Your task to perform on an android device: View the shopping cart on amazon. Add razer blade to the cart on amazon Image 0: 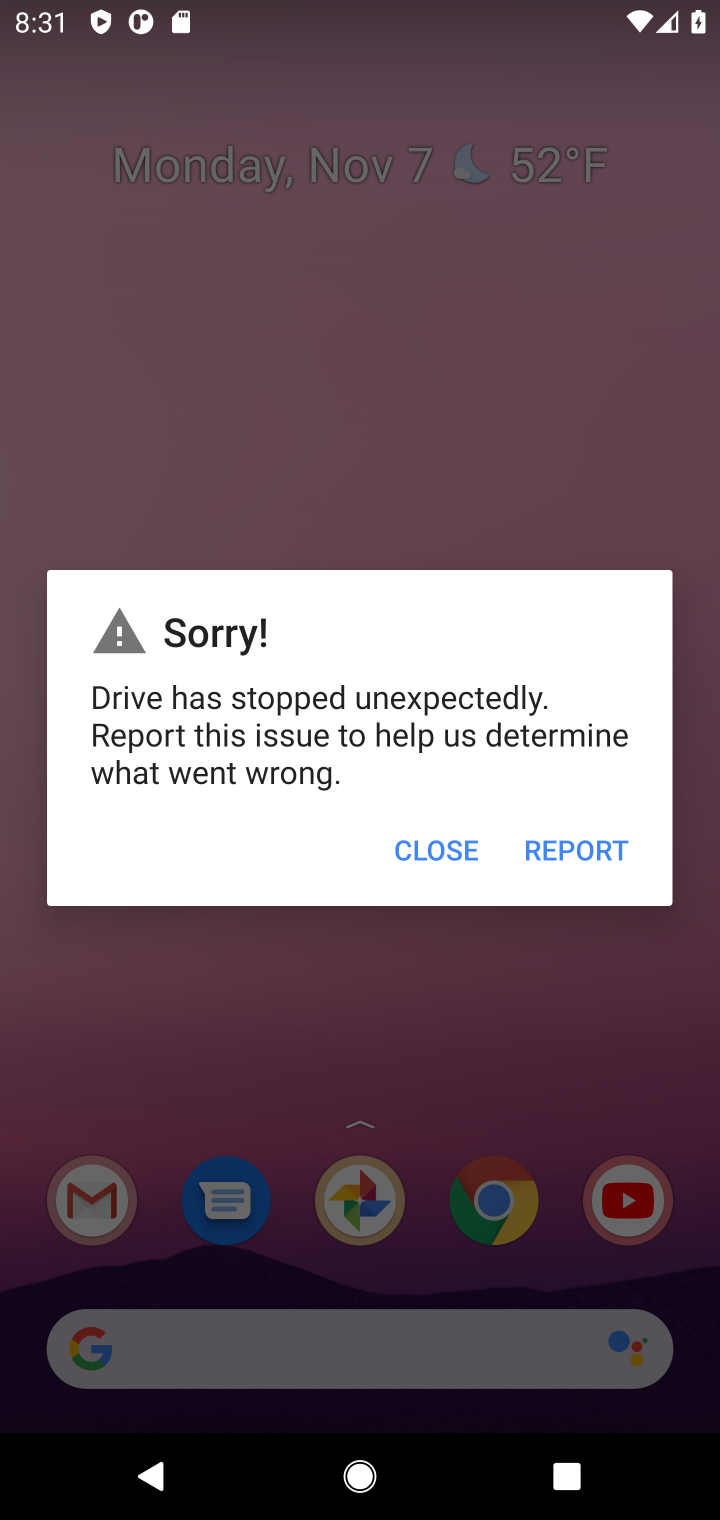
Step 0: press home button
Your task to perform on an android device: View the shopping cart on amazon. Add razer blade to the cart on amazon Image 1: 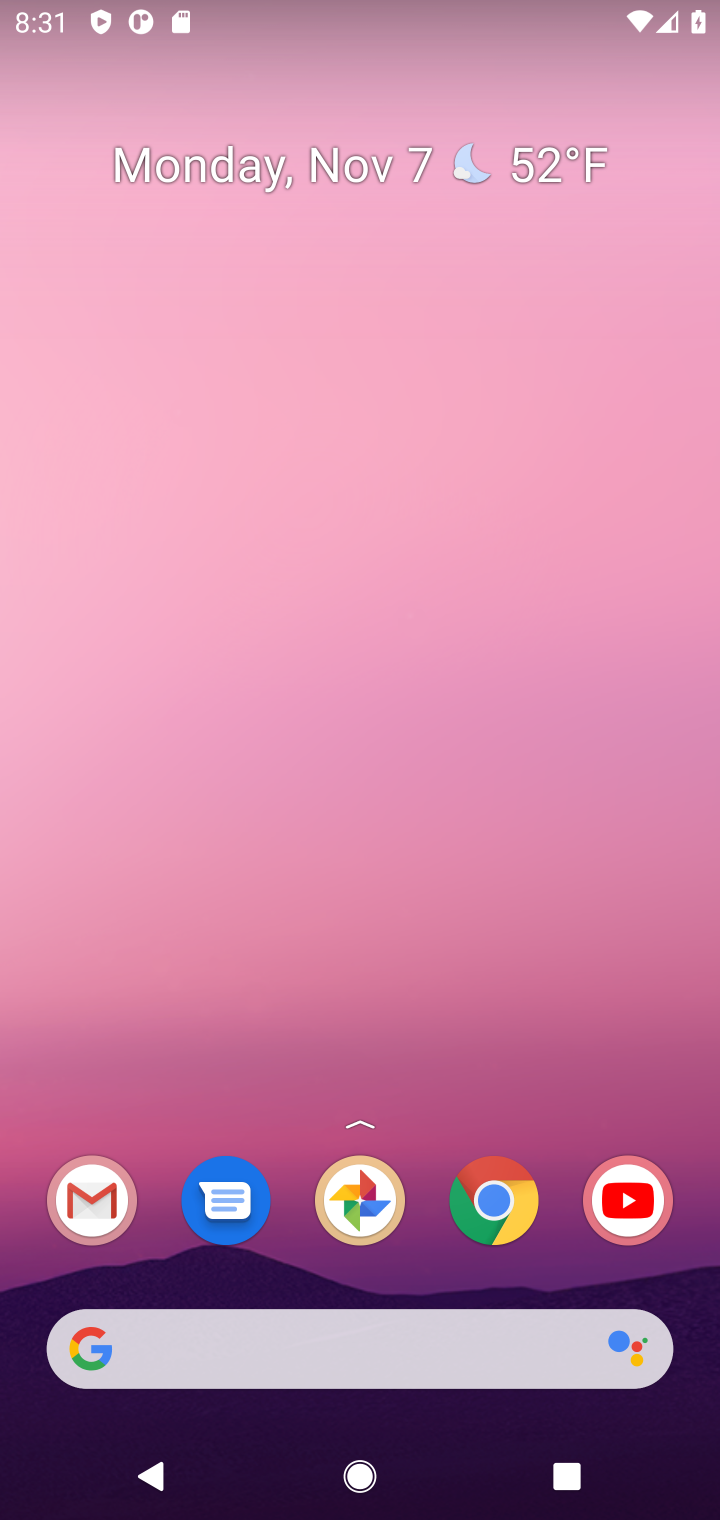
Step 1: click (500, 1225)
Your task to perform on an android device: View the shopping cart on amazon. Add razer blade to the cart on amazon Image 2: 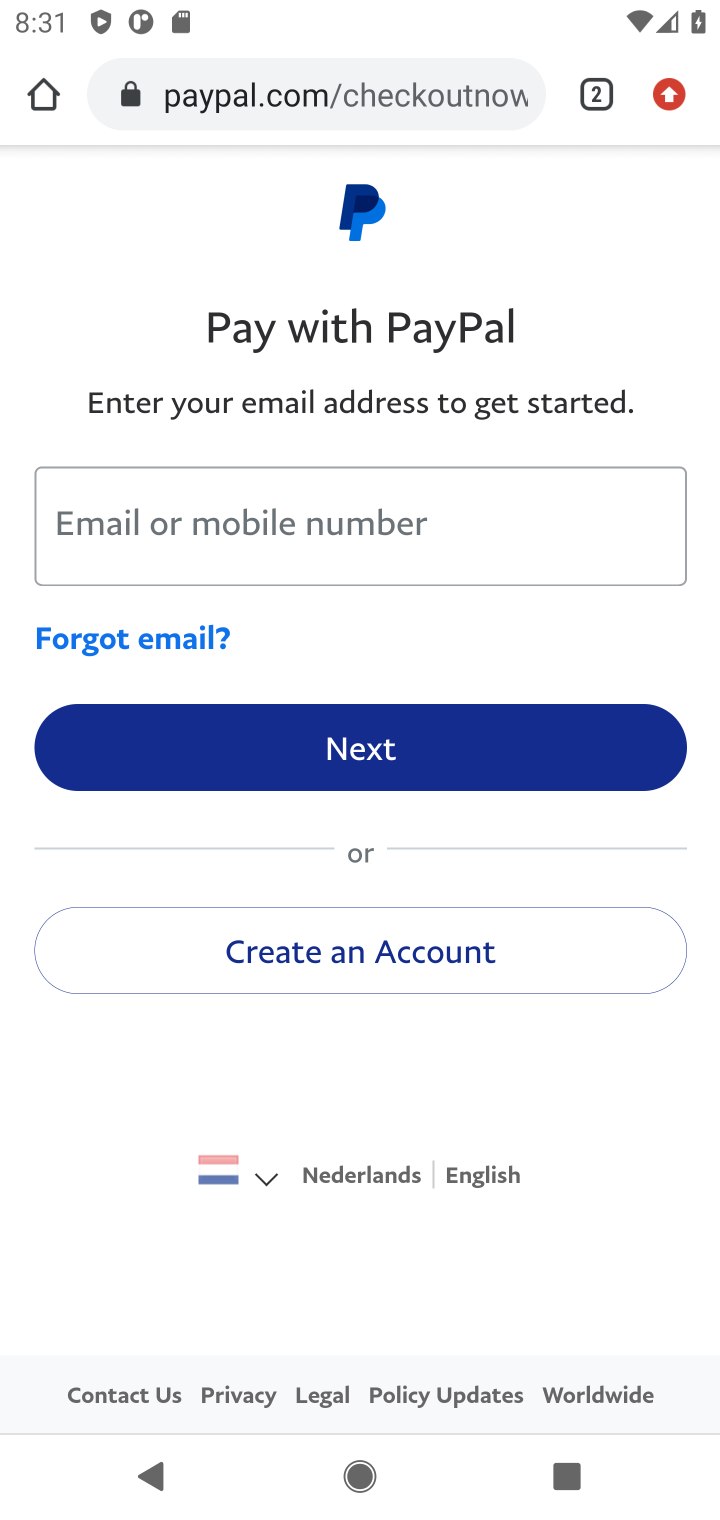
Step 2: click (248, 110)
Your task to perform on an android device: View the shopping cart on amazon. Add razer blade to the cart on amazon Image 3: 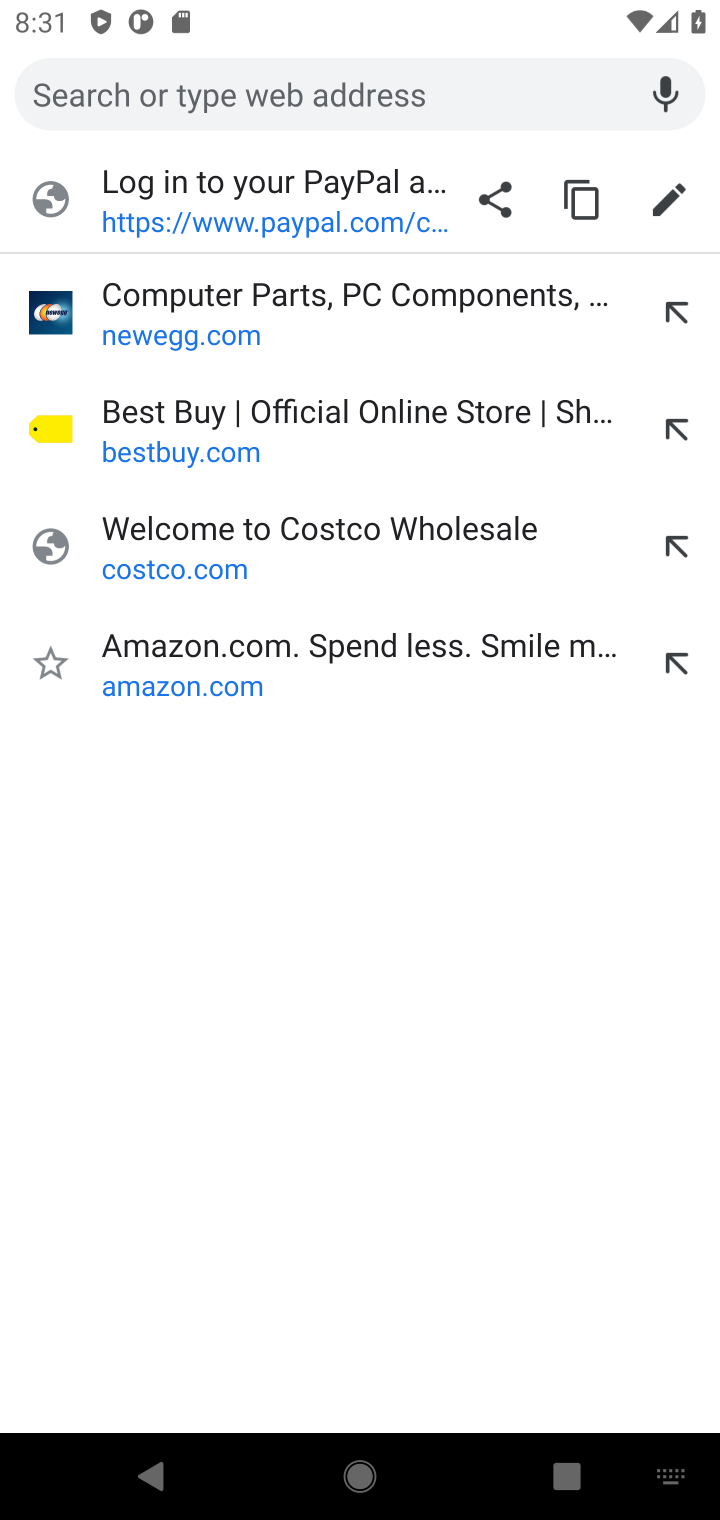
Step 3: type "amazon"
Your task to perform on an android device: View the shopping cart on amazon. Add razer blade to the cart on amazon Image 4: 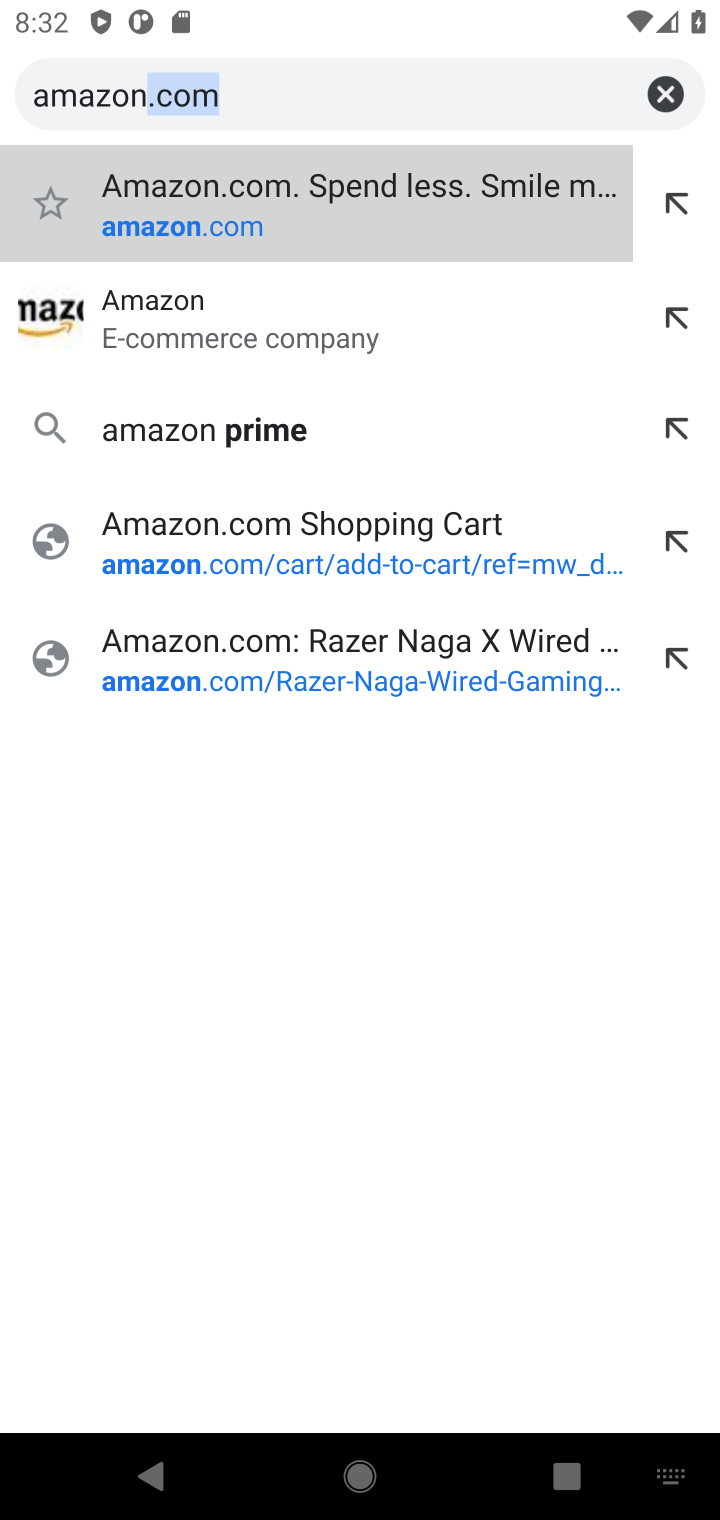
Step 4: click (415, 212)
Your task to perform on an android device: View the shopping cart on amazon. Add razer blade to the cart on amazon Image 5: 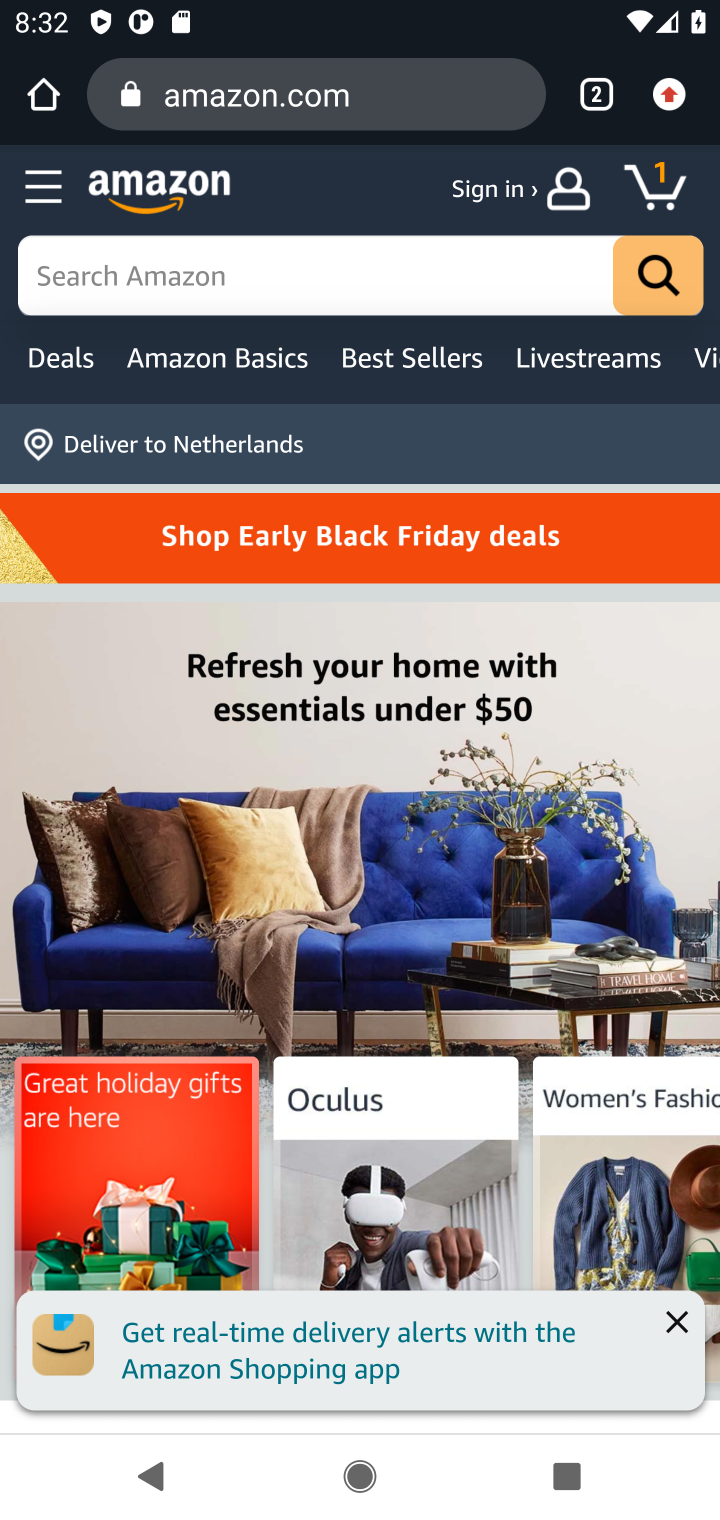
Step 5: click (376, 285)
Your task to perform on an android device: View the shopping cart on amazon. Add razer blade to the cart on amazon Image 6: 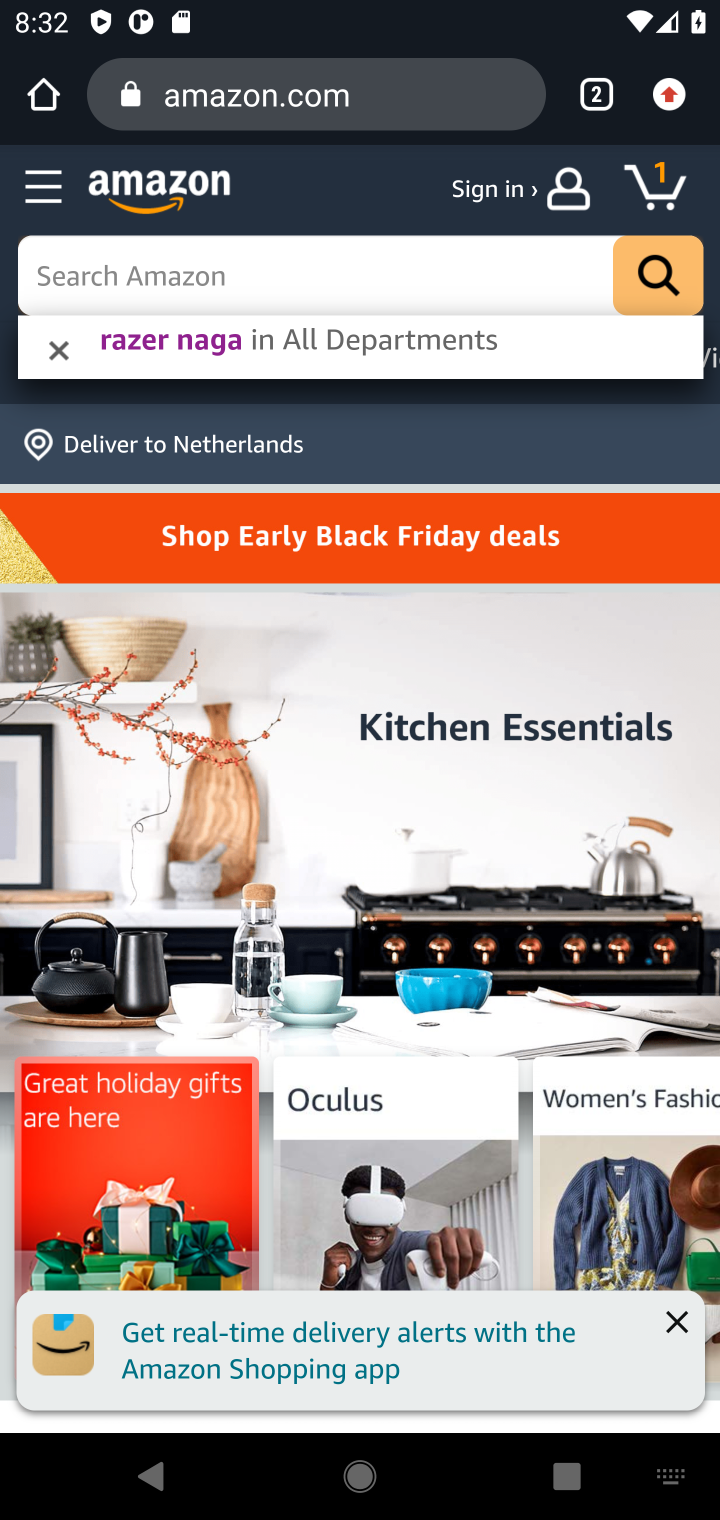
Step 6: type "razer blade"
Your task to perform on an android device: View the shopping cart on amazon. Add razer blade to the cart on amazon Image 7: 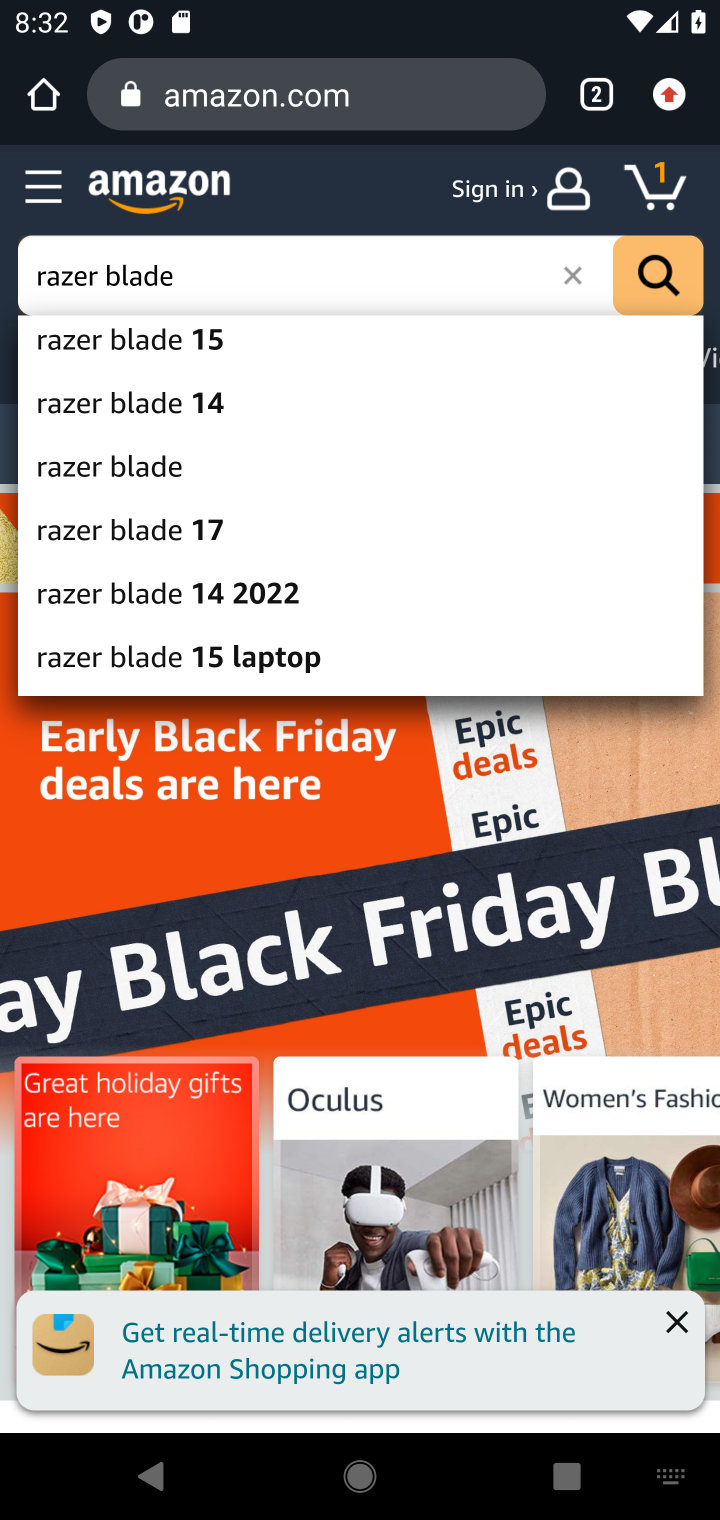
Step 7: press enter
Your task to perform on an android device: View the shopping cart on amazon. Add razer blade to the cart on amazon Image 8: 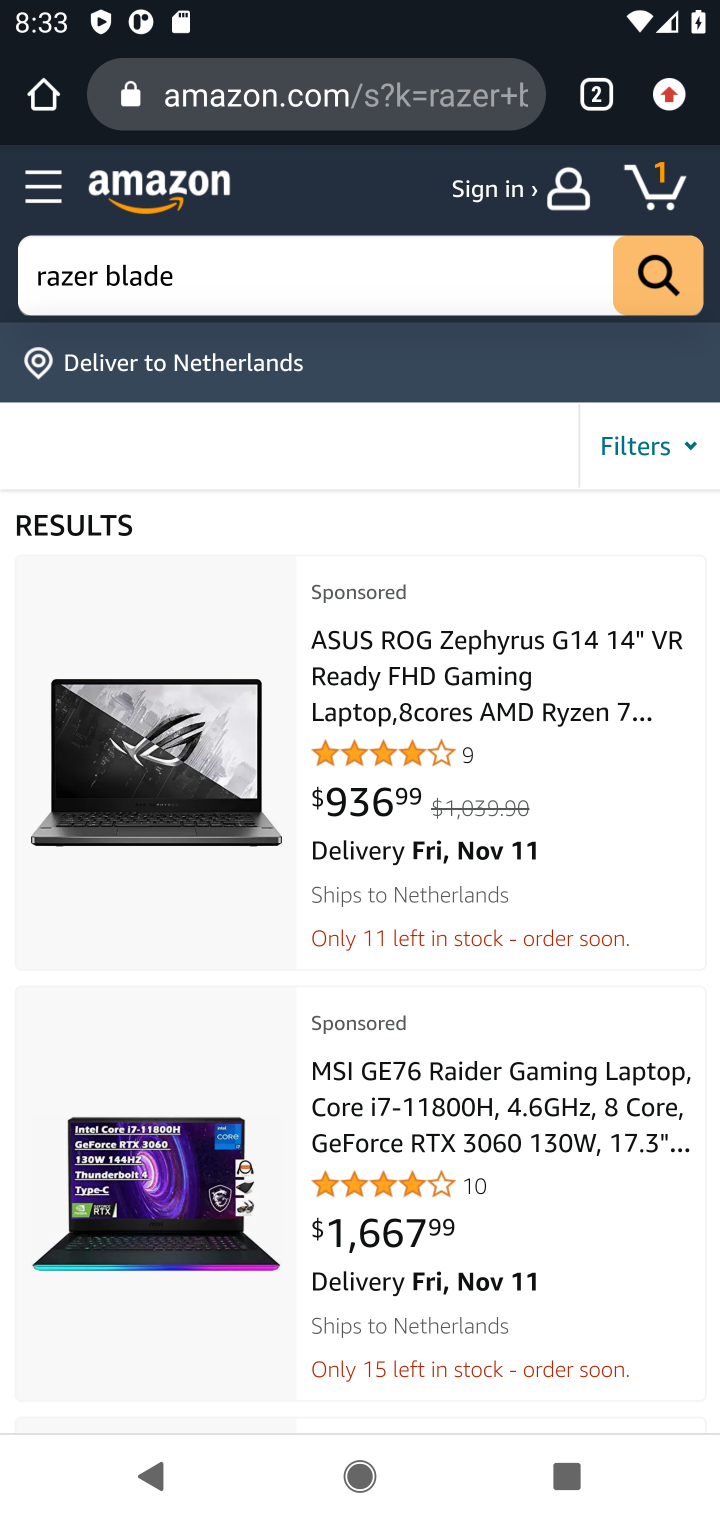
Step 8: drag from (377, 1190) to (440, 819)
Your task to perform on an android device: View the shopping cart on amazon. Add razer blade to the cart on amazon Image 9: 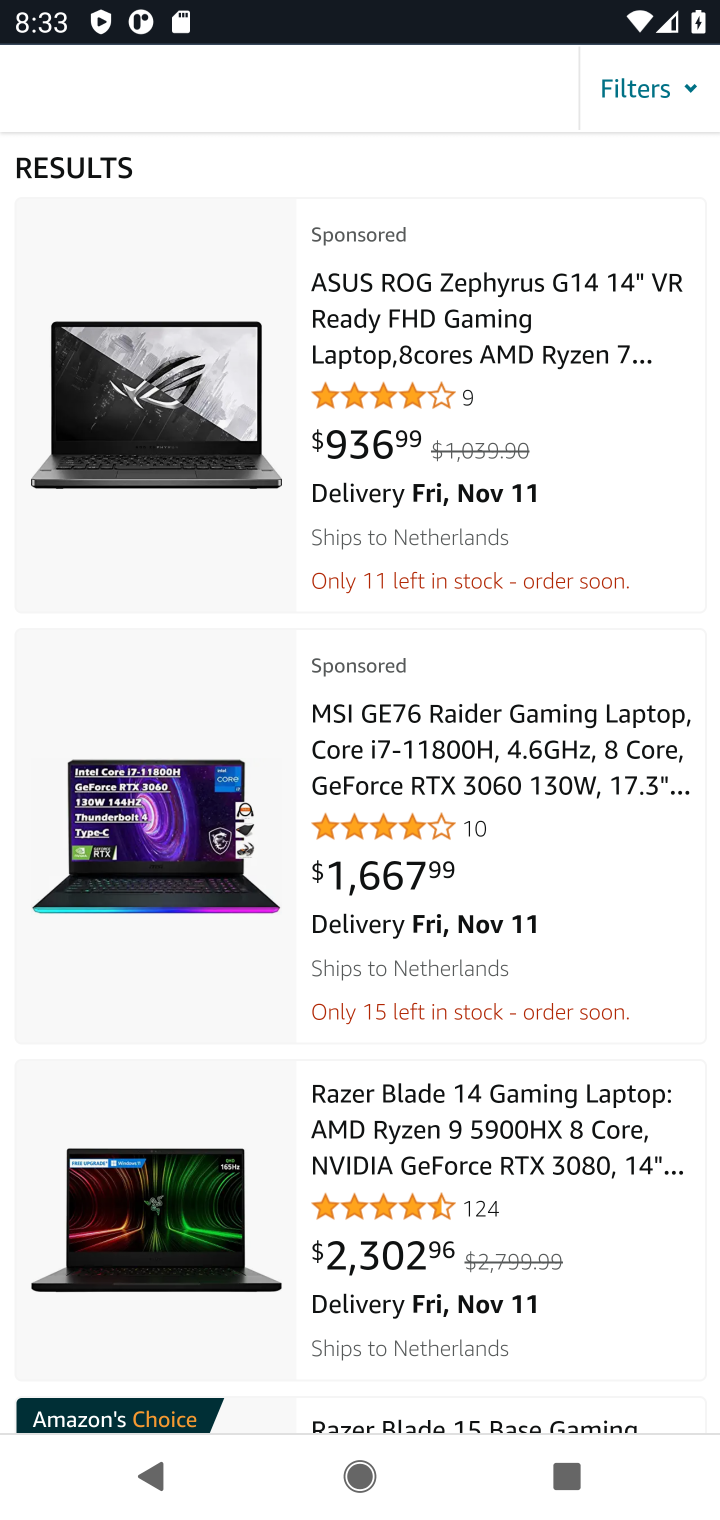
Step 9: click (360, 1129)
Your task to perform on an android device: View the shopping cart on amazon. Add razer blade to the cart on amazon Image 10: 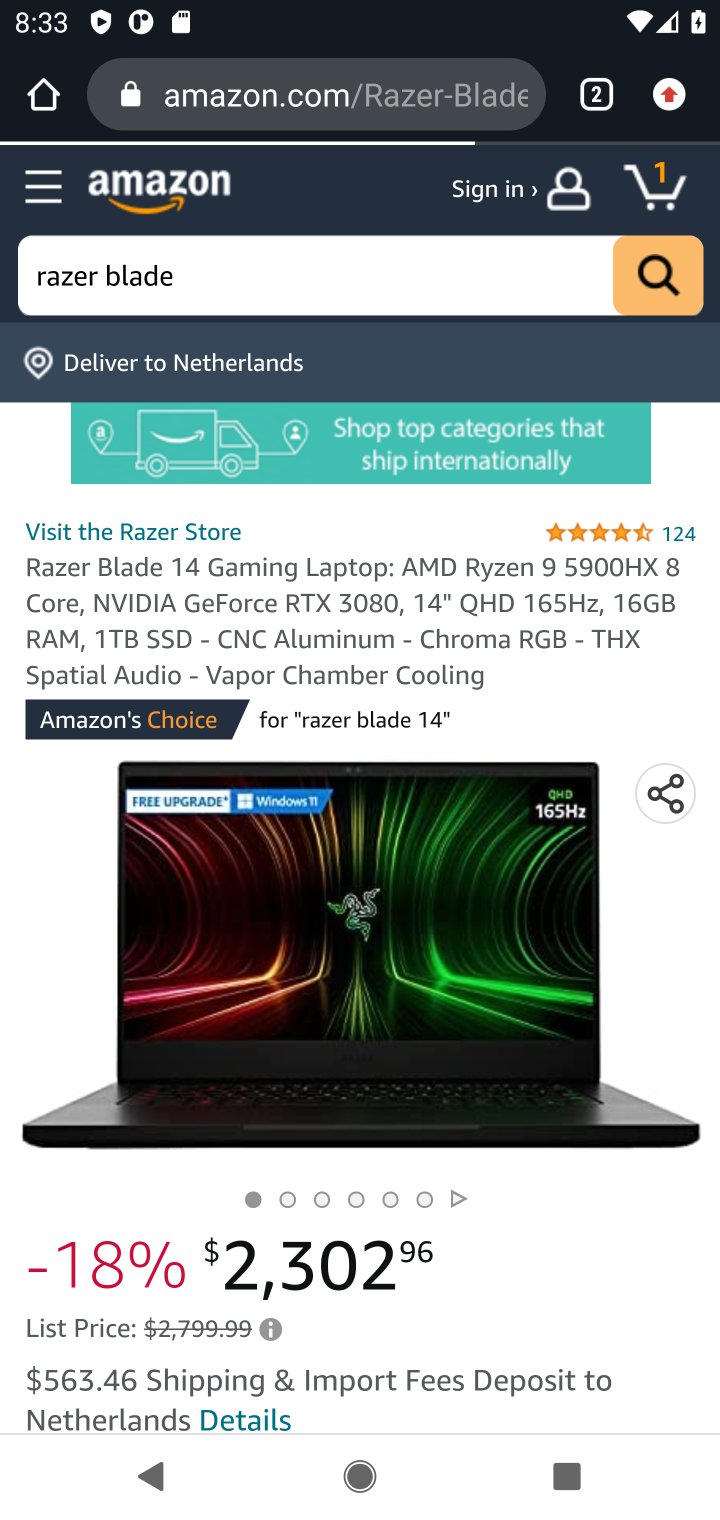
Step 10: drag from (540, 1328) to (446, 639)
Your task to perform on an android device: View the shopping cart on amazon. Add razer blade to the cart on amazon Image 11: 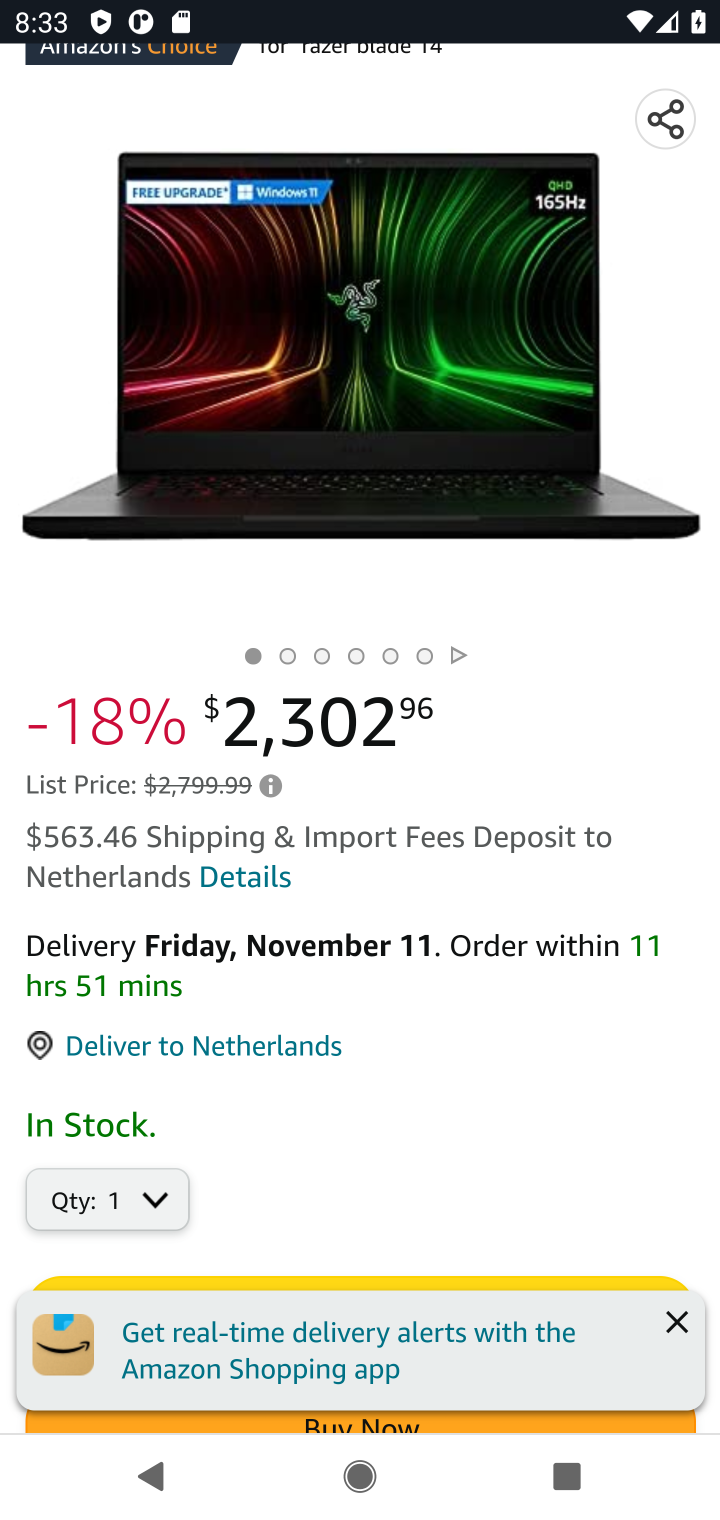
Step 11: click (669, 1334)
Your task to perform on an android device: View the shopping cart on amazon. Add razer blade to the cart on amazon Image 12: 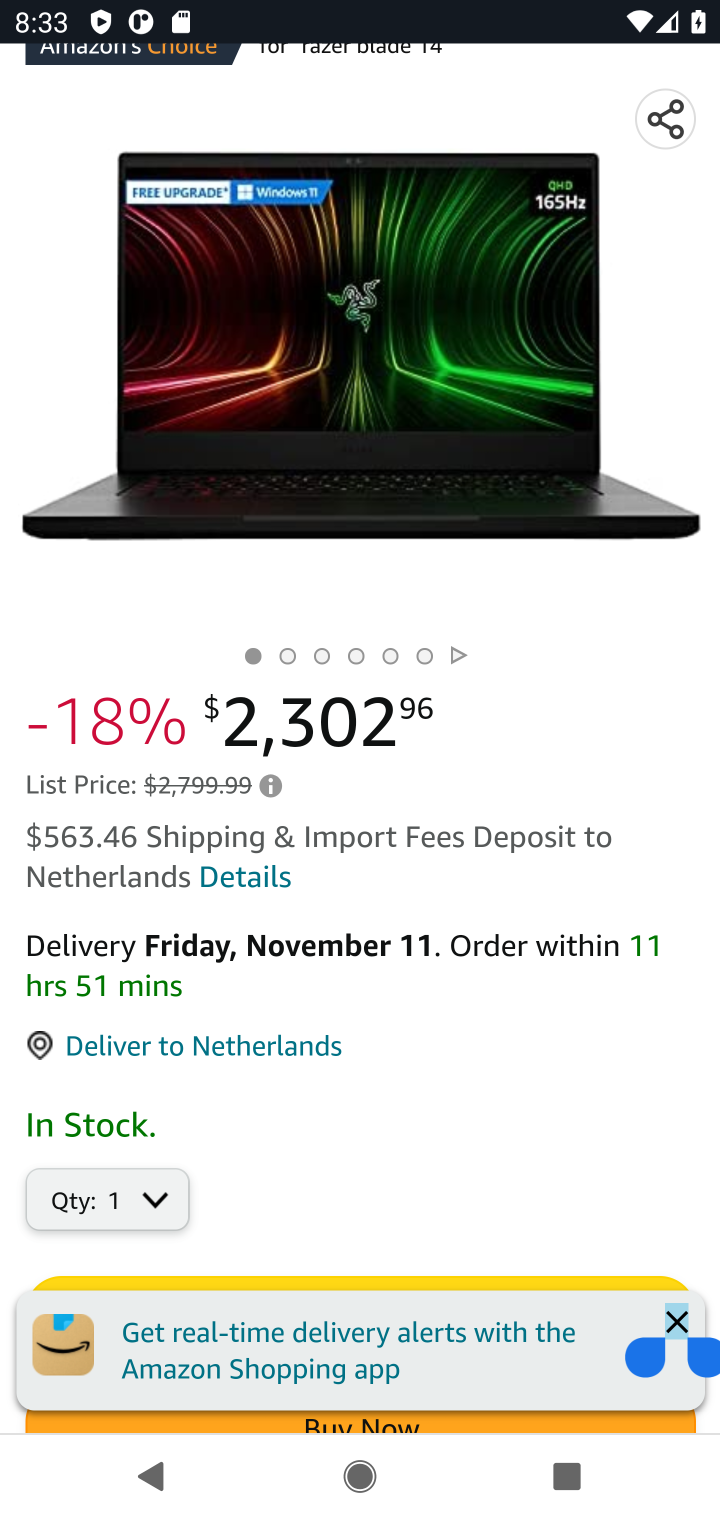
Step 12: click (678, 1322)
Your task to perform on an android device: View the shopping cart on amazon. Add razer blade to the cart on amazon Image 13: 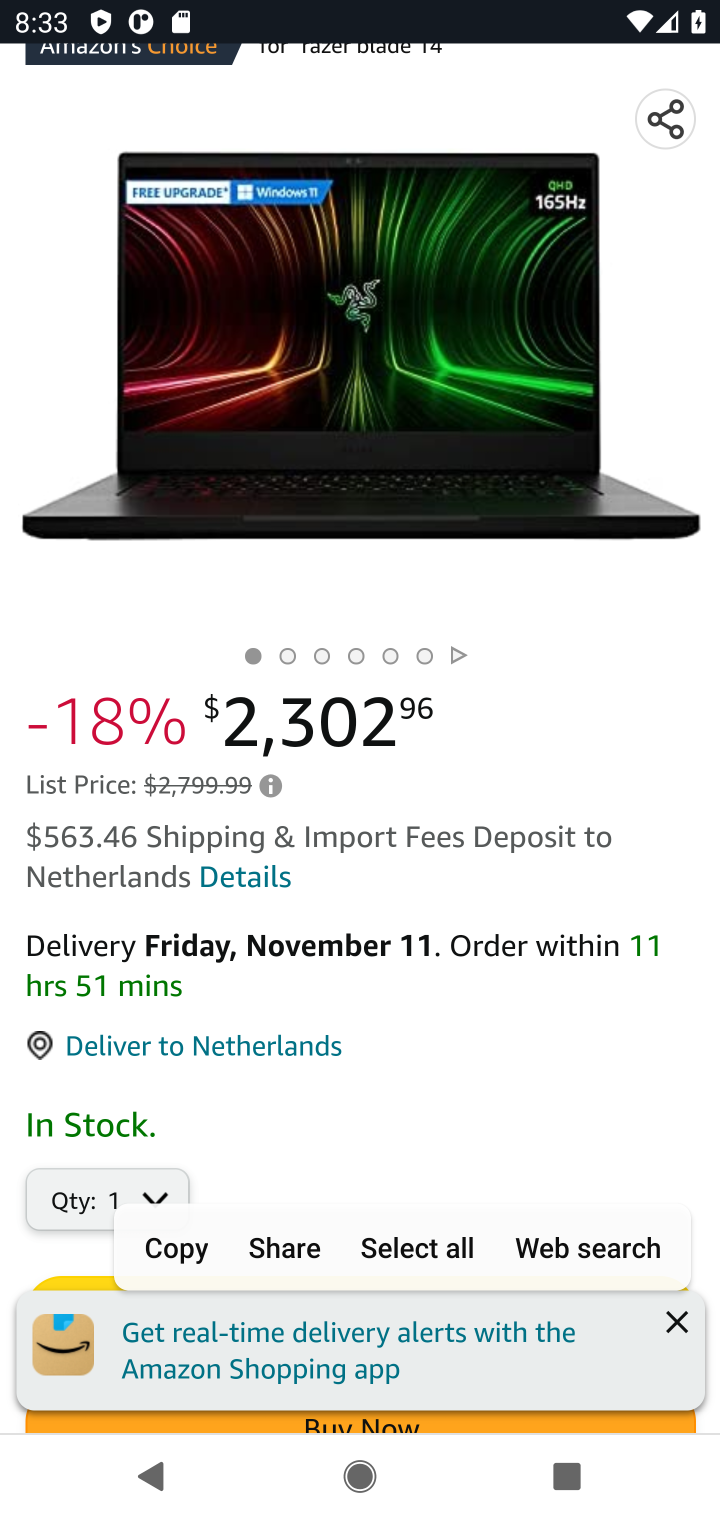
Step 13: click (611, 1111)
Your task to perform on an android device: View the shopping cart on amazon. Add razer blade to the cart on amazon Image 14: 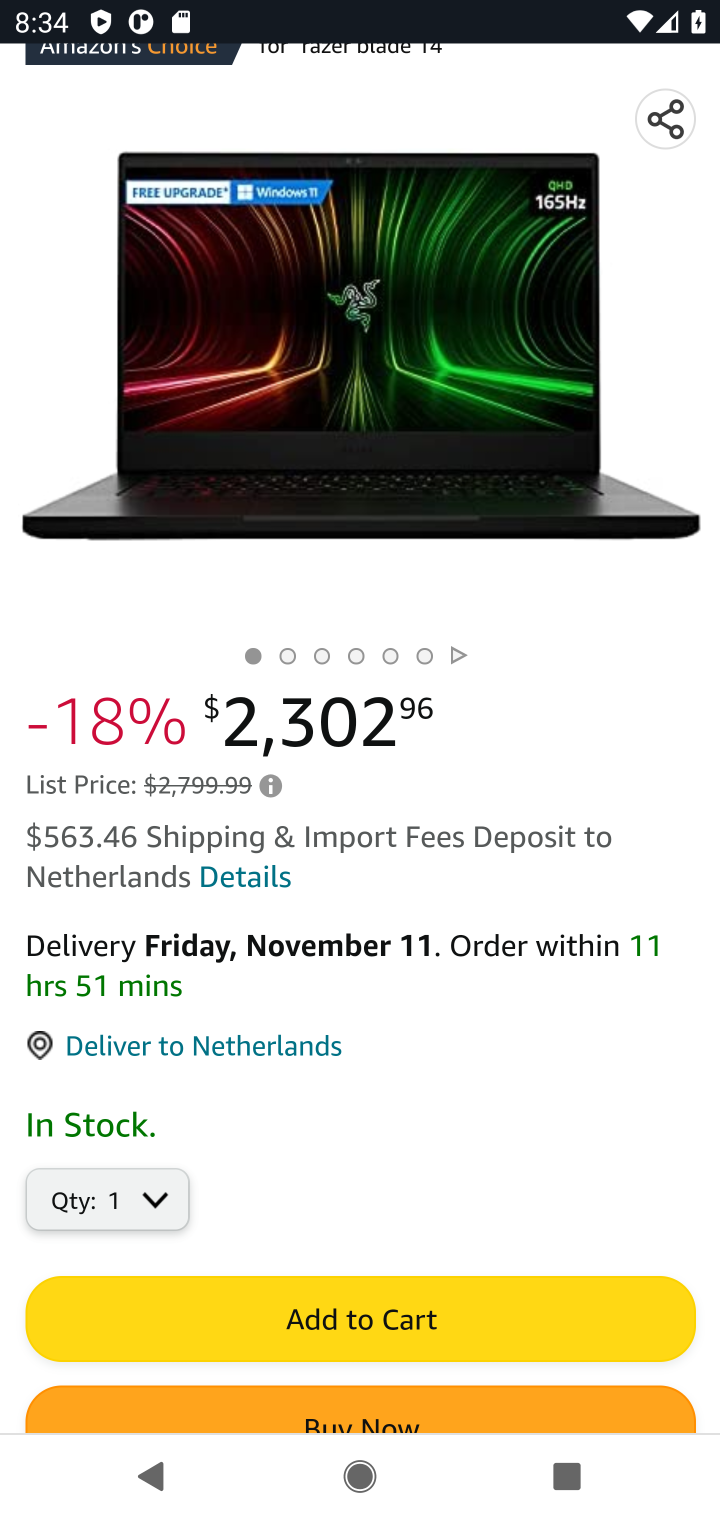
Step 14: click (446, 1323)
Your task to perform on an android device: View the shopping cart on amazon. Add razer blade to the cart on amazon Image 15: 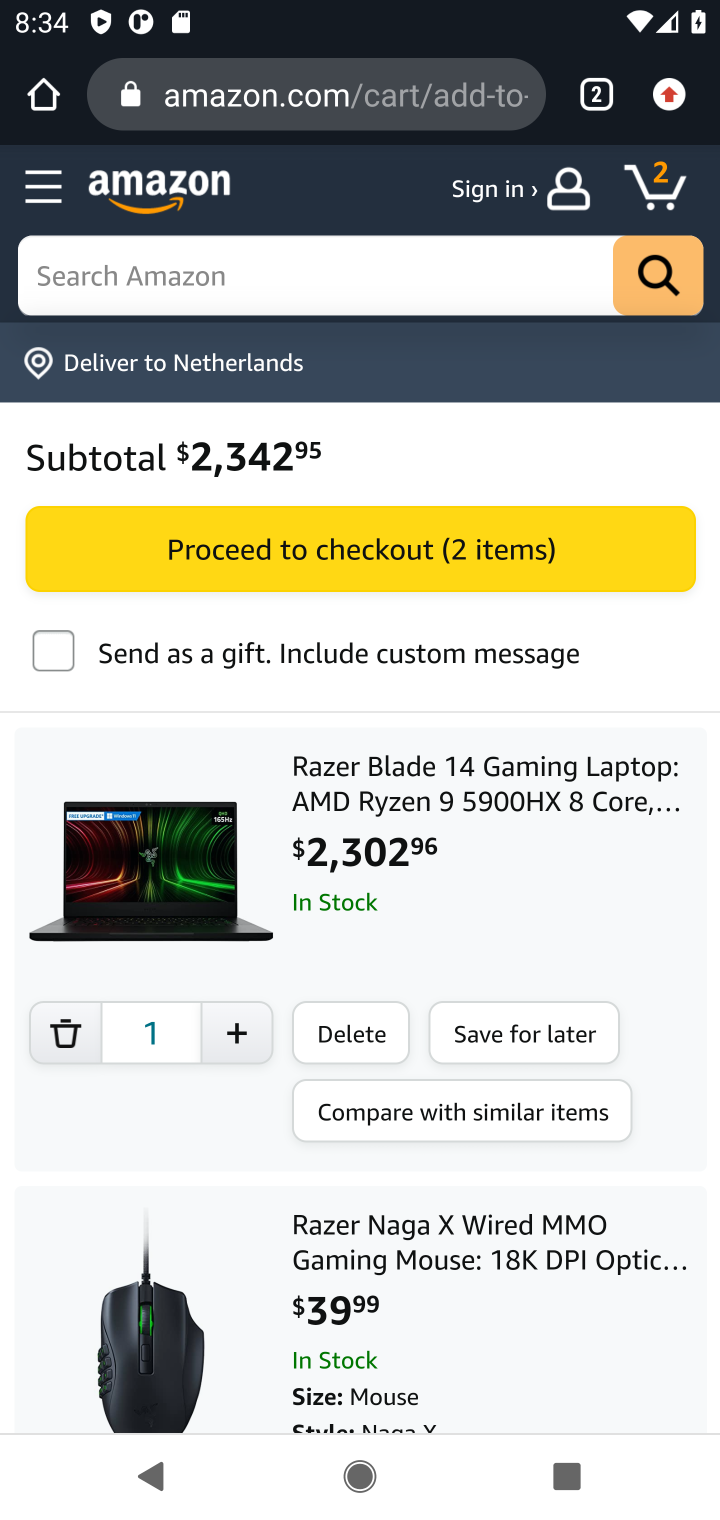
Step 15: click (323, 568)
Your task to perform on an android device: View the shopping cart on amazon. Add razer blade to the cart on amazon Image 16: 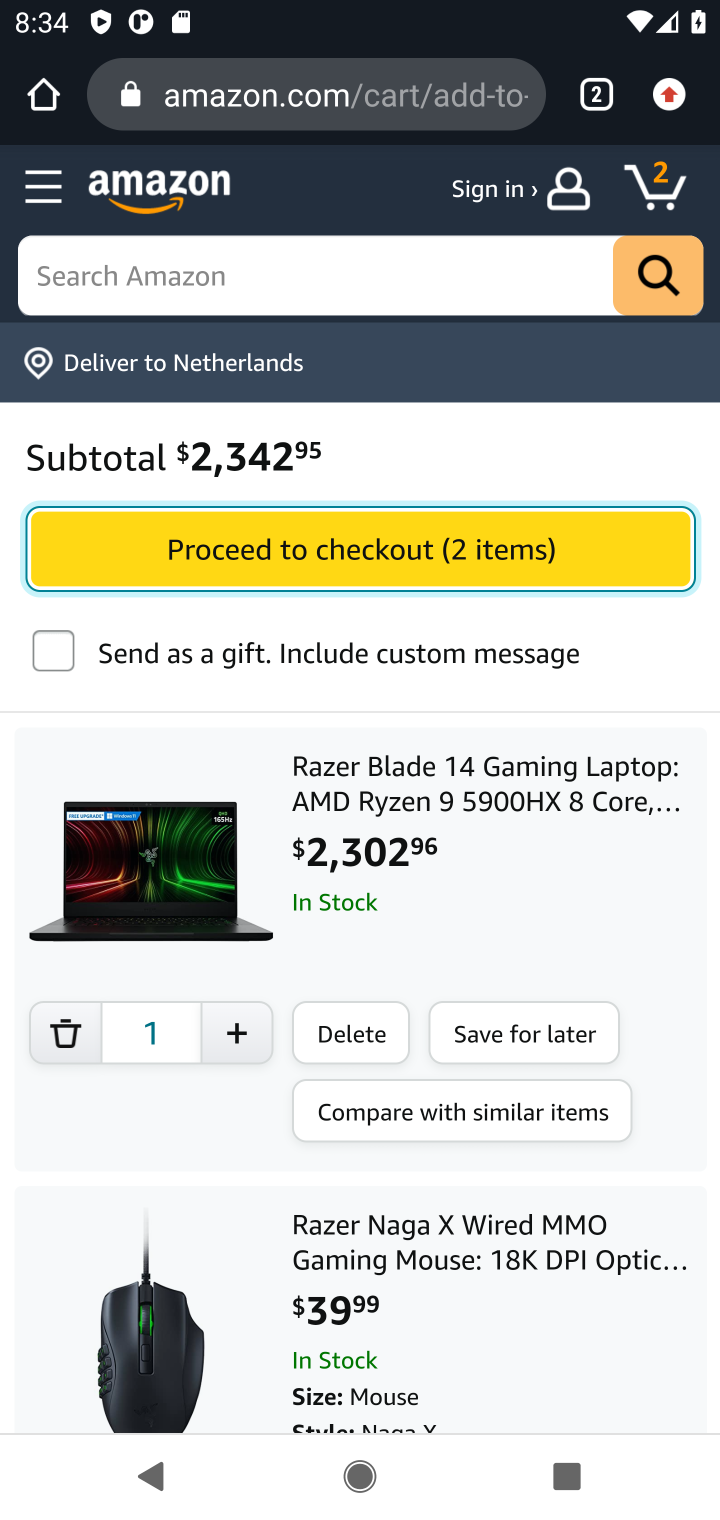
Step 16: task complete